Your task to perform on an android device: find snoozed emails in the gmail app Image 0: 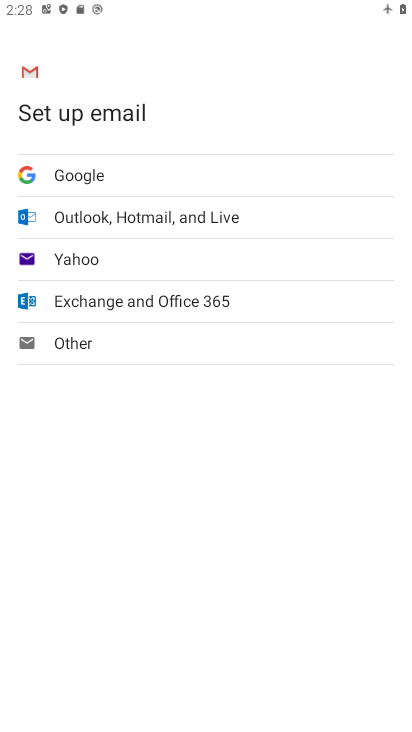
Step 0: press back button
Your task to perform on an android device: find snoozed emails in the gmail app Image 1: 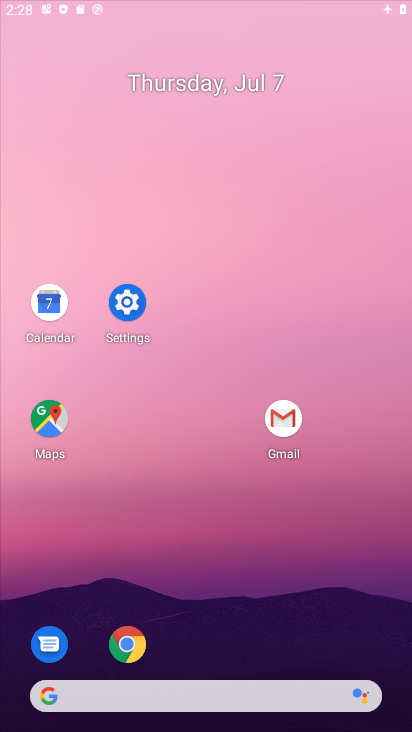
Step 1: press home button
Your task to perform on an android device: find snoozed emails in the gmail app Image 2: 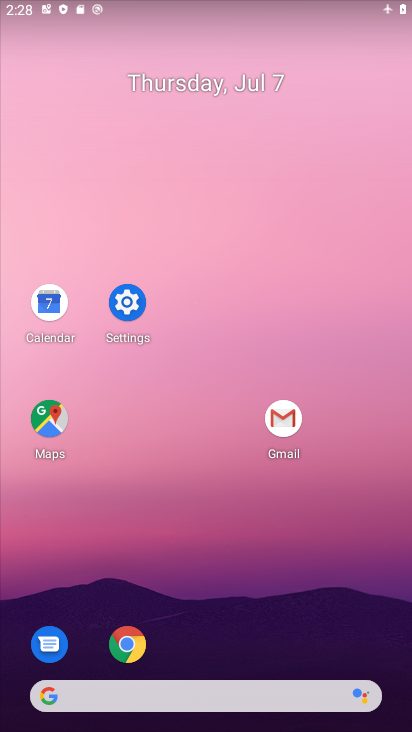
Step 2: click (289, 423)
Your task to perform on an android device: find snoozed emails in the gmail app Image 3: 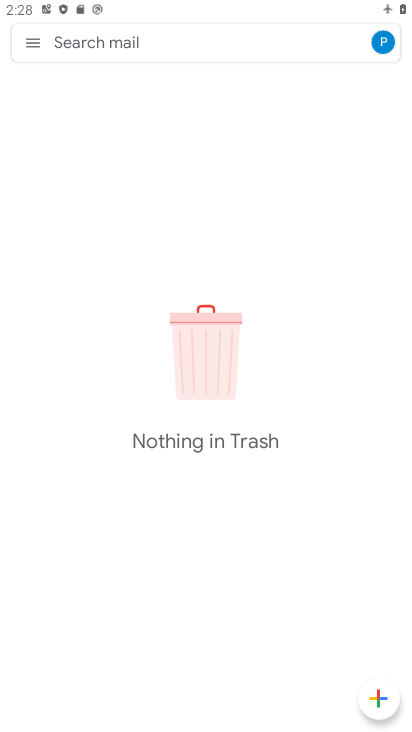
Step 3: click (17, 42)
Your task to perform on an android device: find snoozed emails in the gmail app Image 4: 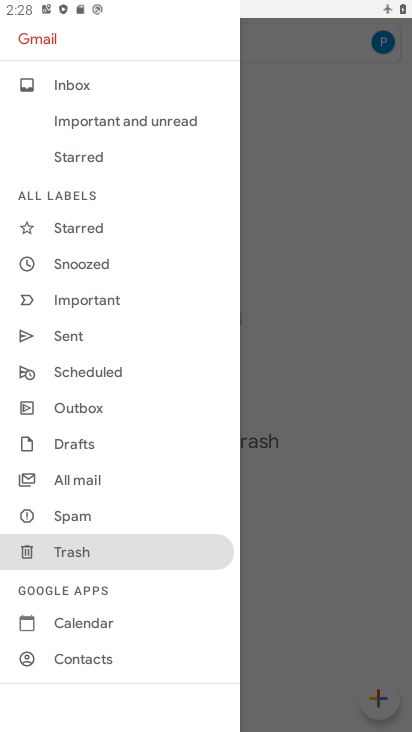
Step 4: click (108, 259)
Your task to perform on an android device: find snoozed emails in the gmail app Image 5: 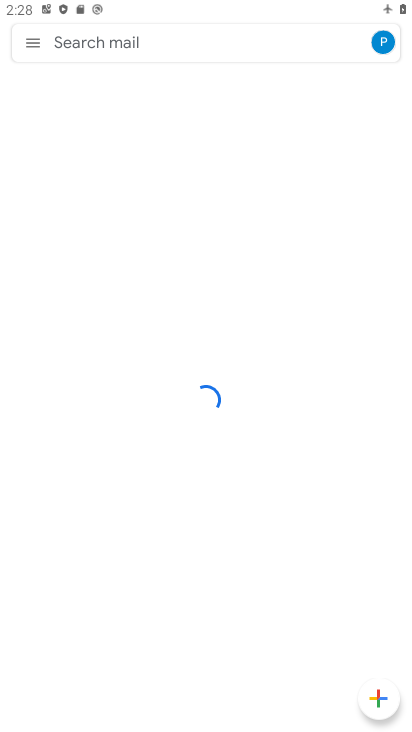
Step 5: task complete